Your task to perform on an android device: open wifi settings Image 0: 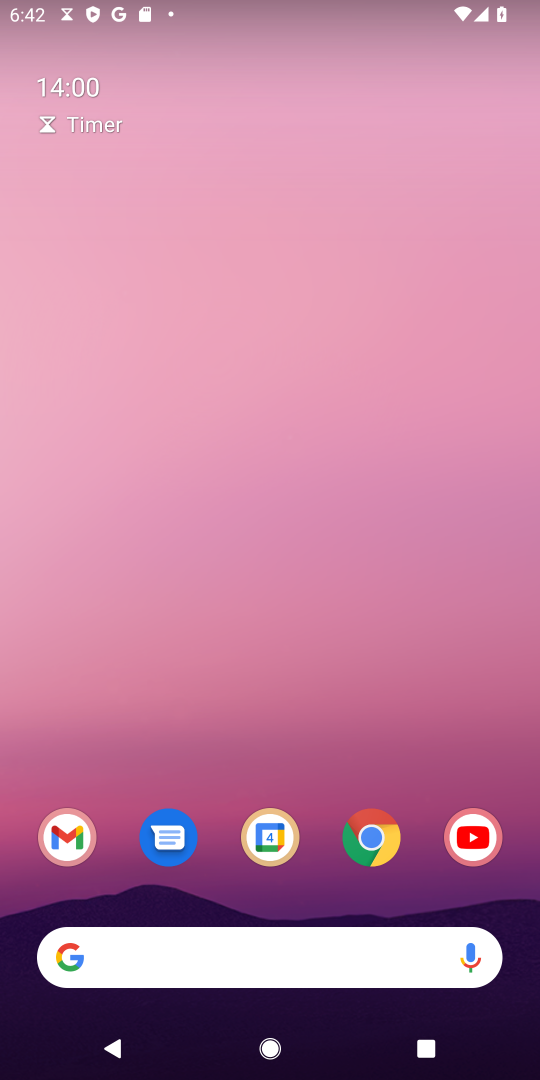
Step 0: press home button
Your task to perform on an android device: open wifi settings Image 1: 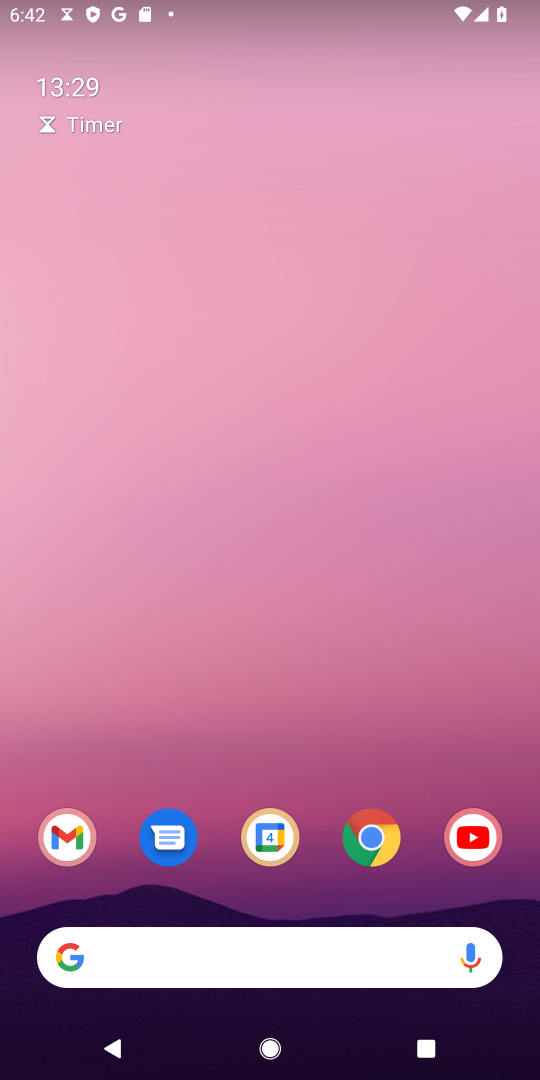
Step 1: drag from (321, 797) to (311, 5)
Your task to perform on an android device: open wifi settings Image 2: 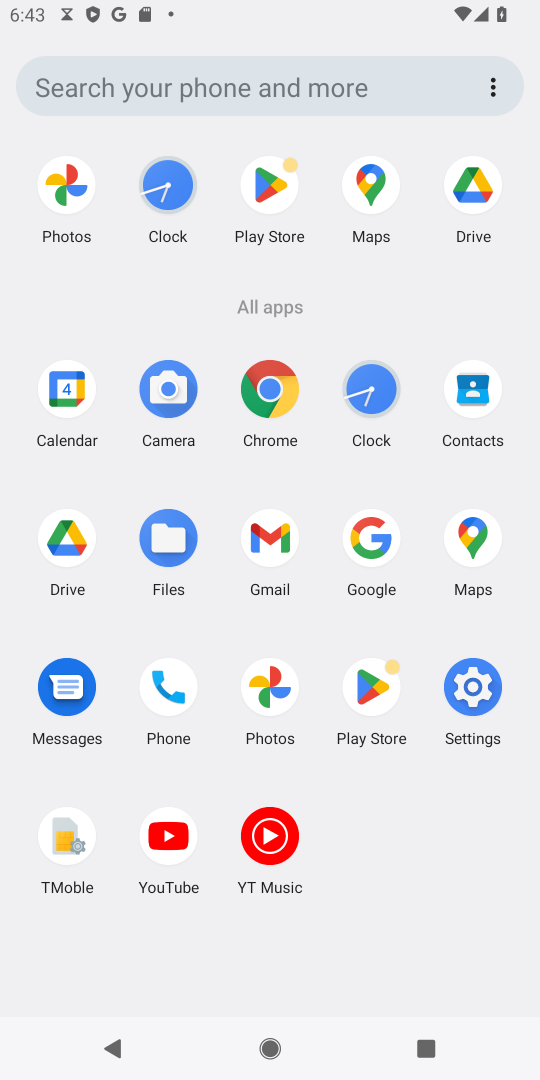
Step 2: click (470, 680)
Your task to perform on an android device: open wifi settings Image 3: 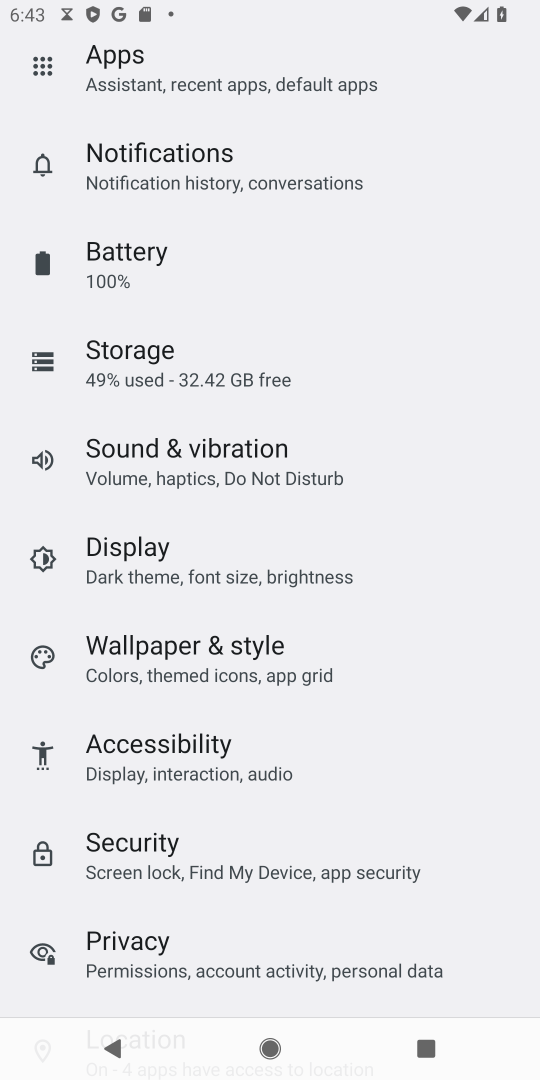
Step 3: drag from (236, 144) to (302, 938)
Your task to perform on an android device: open wifi settings Image 4: 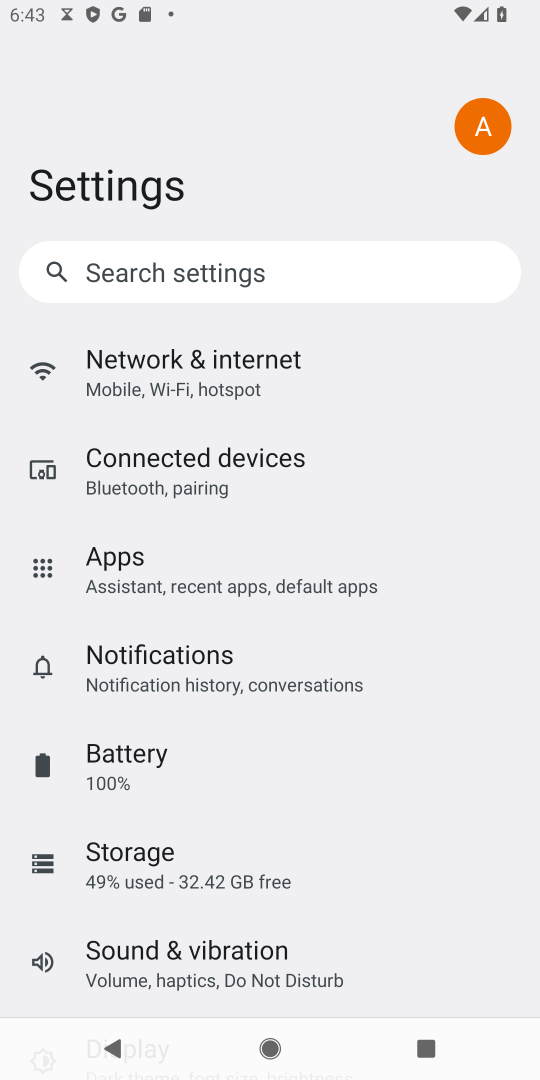
Step 4: click (232, 377)
Your task to perform on an android device: open wifi settings Image 5: 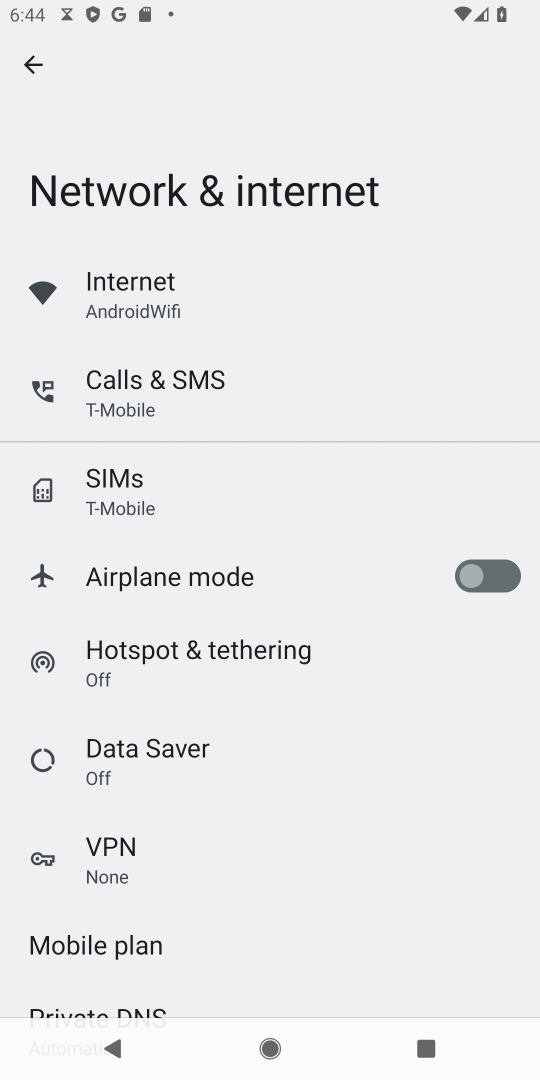
Step 5: click (150, 310)
Your task to perform on an android device: open wifi settings Image 6: 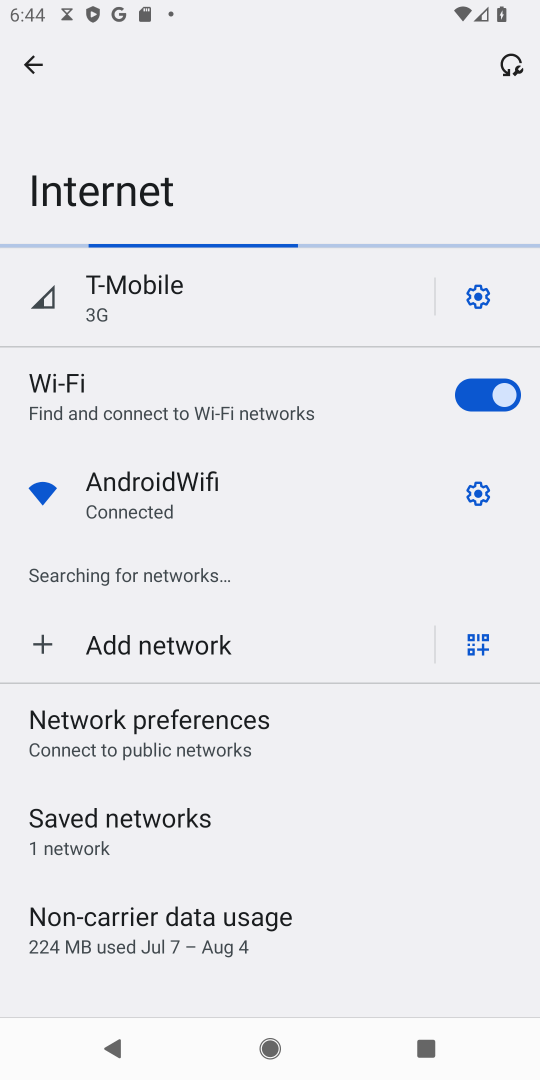
Step 6: task complete